Your task to perform on an android device: open wifi settings Image 0: 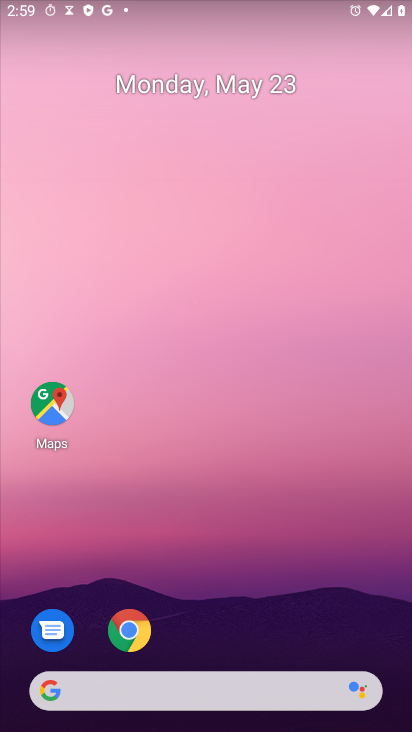
Step 0: drag from (345, 573) to (389, 17)
Your task to perform on an android device: open wifi settings Image 1: 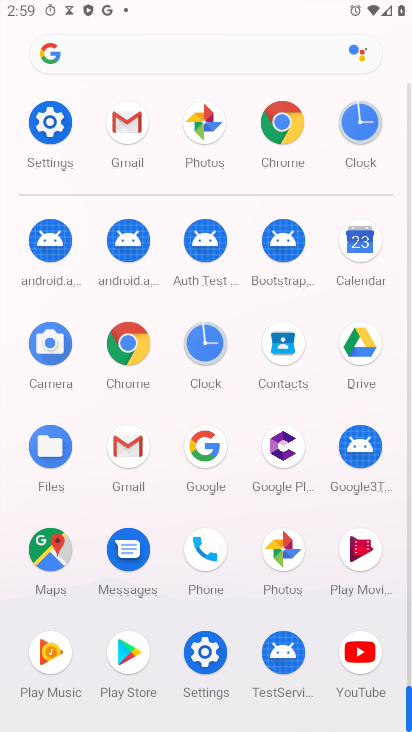
Step 1: click (63, 139)
Your task to perform on an android device: open wifi settings Image 2: 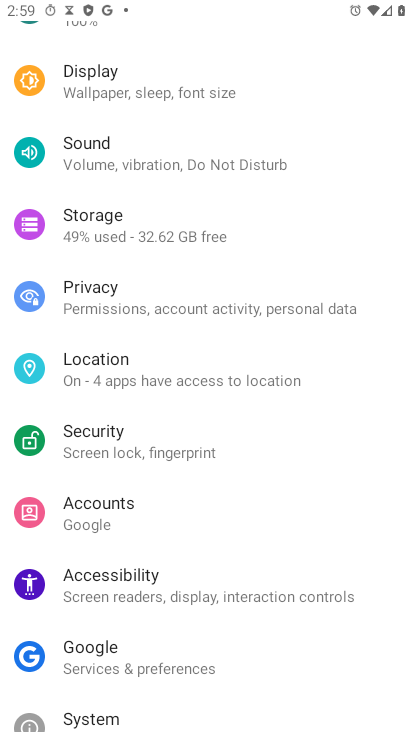
Step 2: drag from (200, 189) to (242, 618)
Your task to perform on an android device: open wifi settings Image 3: 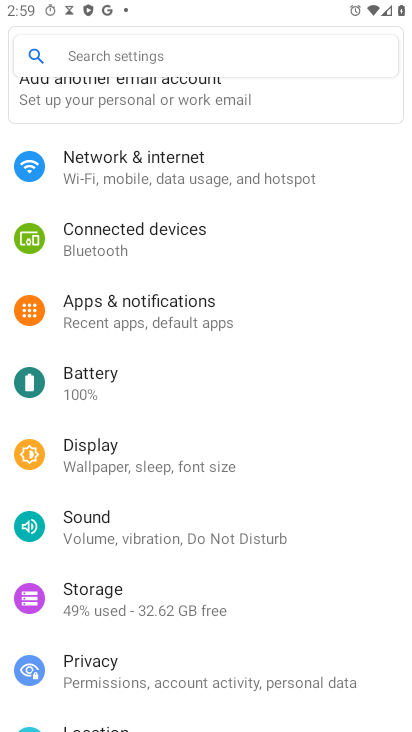
Step 3: click (169, 184)
Your task to perform on an android device: open wifi settings Image 4: 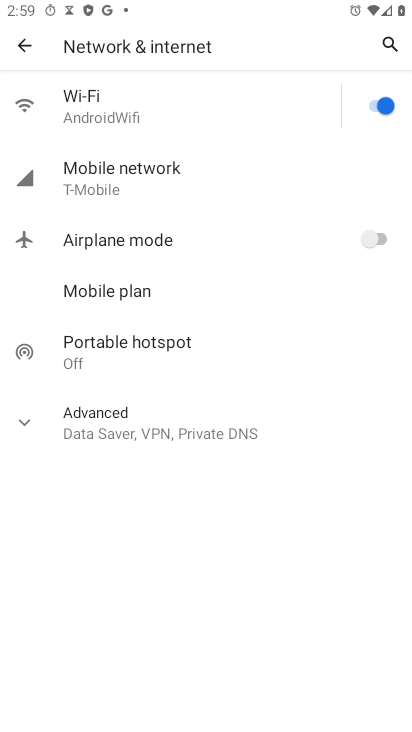
Step 4: click (139, 127)
Your task to perform on an android device: open wifi settings Image 5: 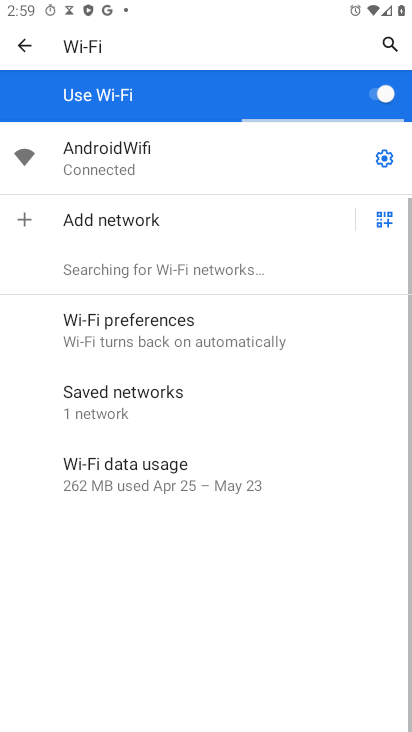
Step 5: task complete